Your task to perform on an android device: choose inbox layout in the gmail app Image 0: 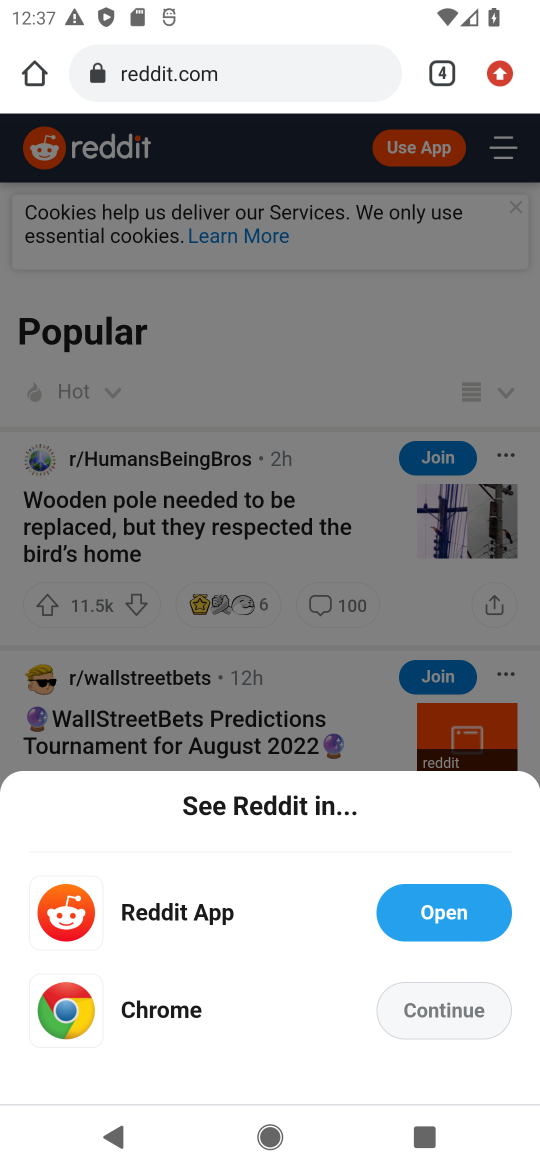
Step 0: press back button
Your task to perform on an android device: choose inbox layout in the gmail app Image 1: 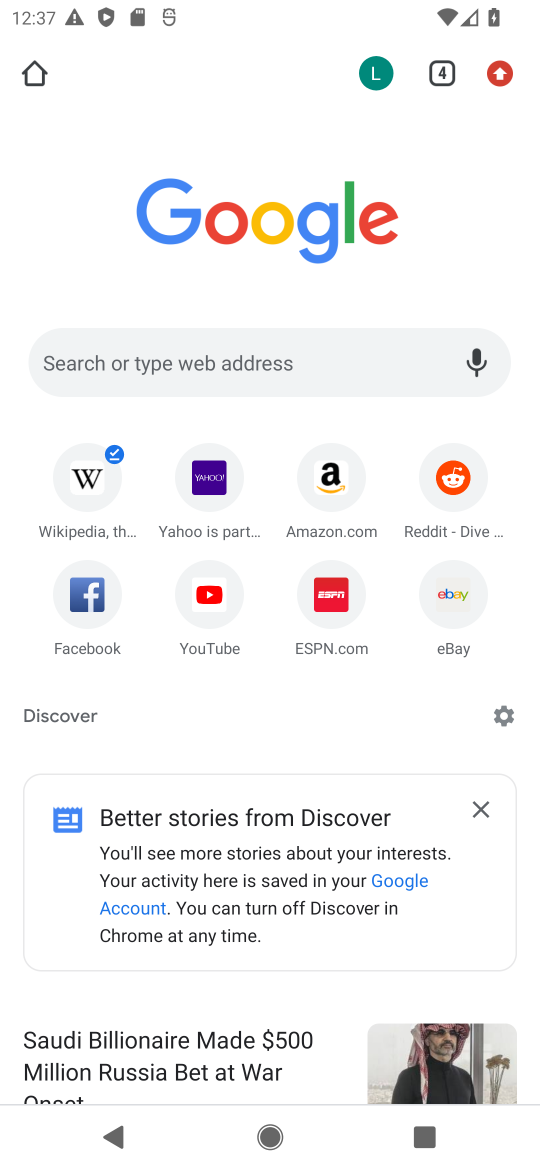
Step 1: press back button
Your task to perform on an android device: choose inbox layout in the gmail app Image 2: 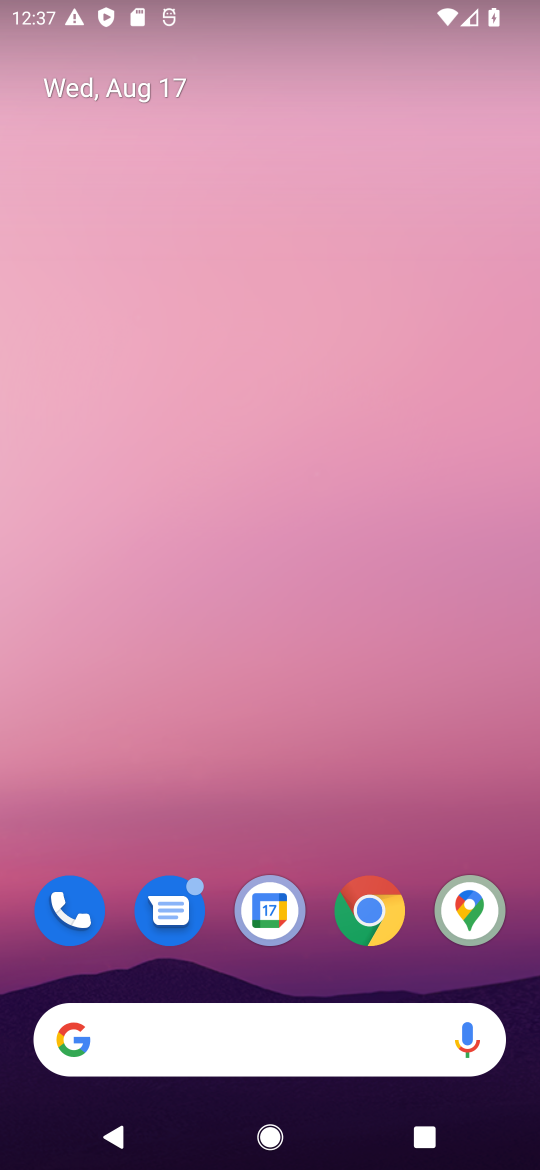
Step 2: drag from (288, 979) to (342, 129)
Your task to perform on an android device: choose inbox layout in the gmail app Image 3: 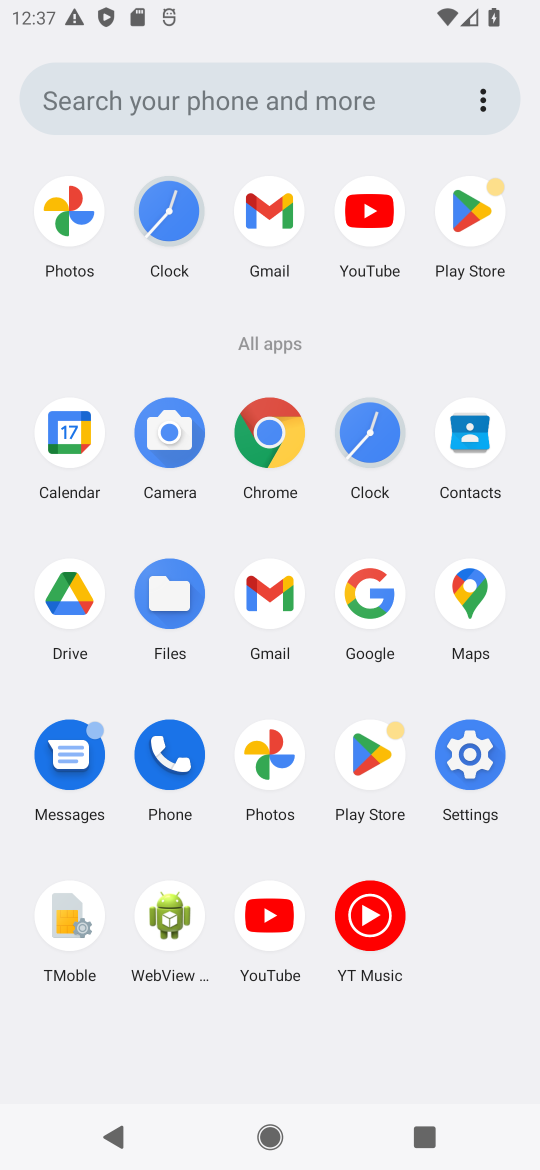
Step 3: click (274, 214)
Your task to perform on an android device: choose inbox layout in the gmail app Image 4: 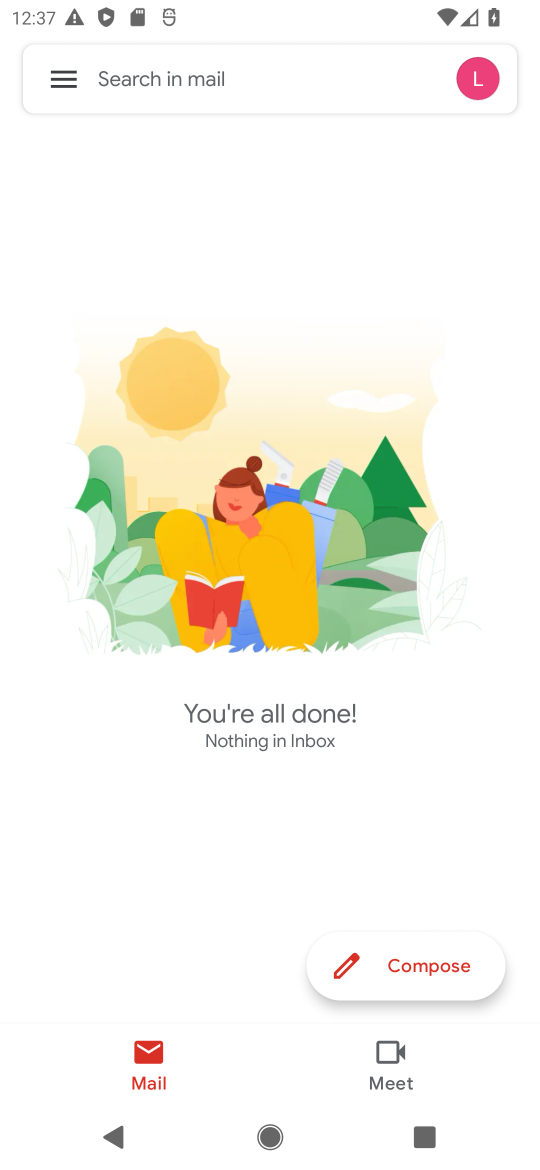
Step 4: click (61, 76)
Your task to perform on an android device: choose inbox layout in the gmail app Image 5: 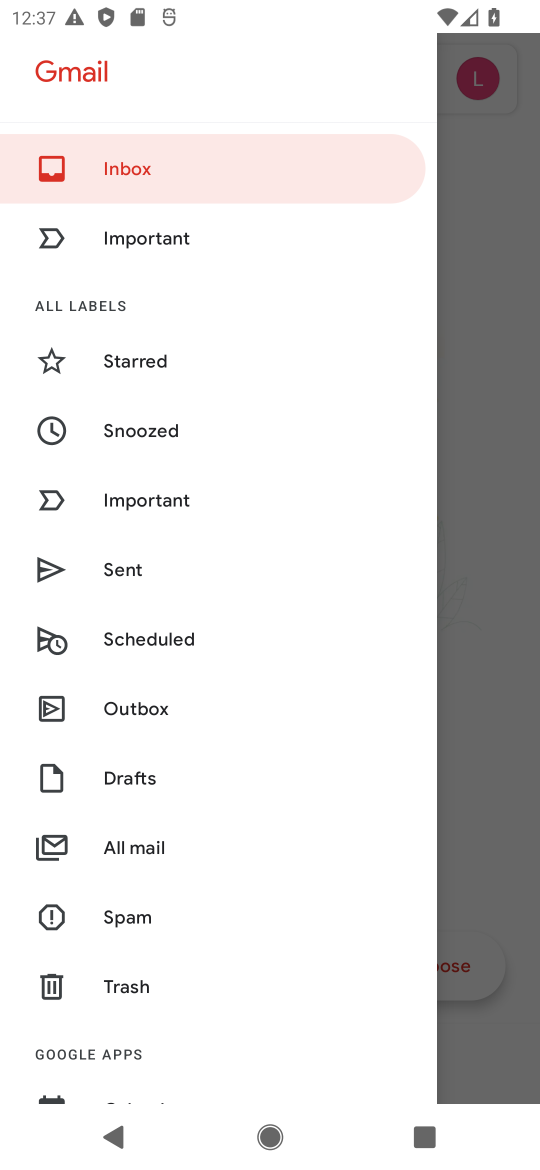
Step 5: drag from (240, 1023) to (310, 162)
Your task to perform on an android device: choose inbox layout in the gmail app Image 6: 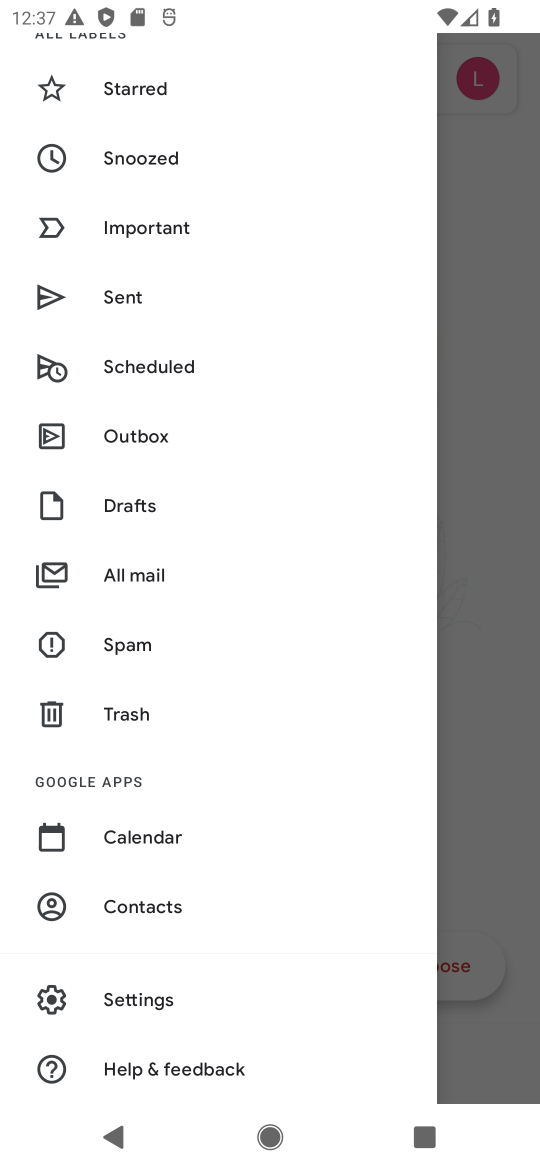
Step 6: click (171, 991)
Your task to perform on an android device: choose inbox layout in the gmail app Image 7: 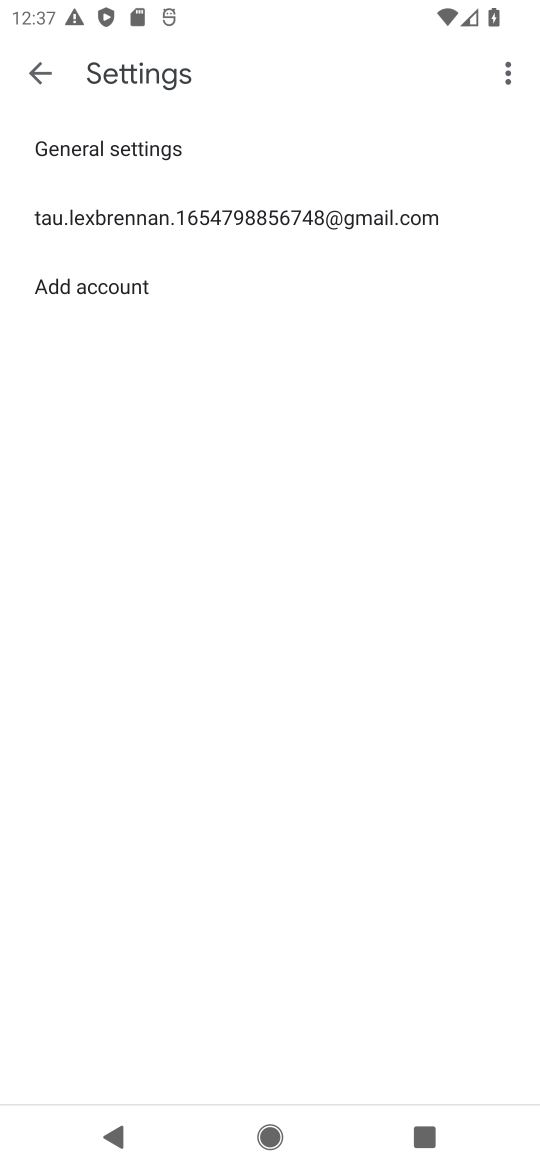
Step 7: click (205, 208)
Your task to perform on an android device: choose inbox layout in the gmail app Image 8: 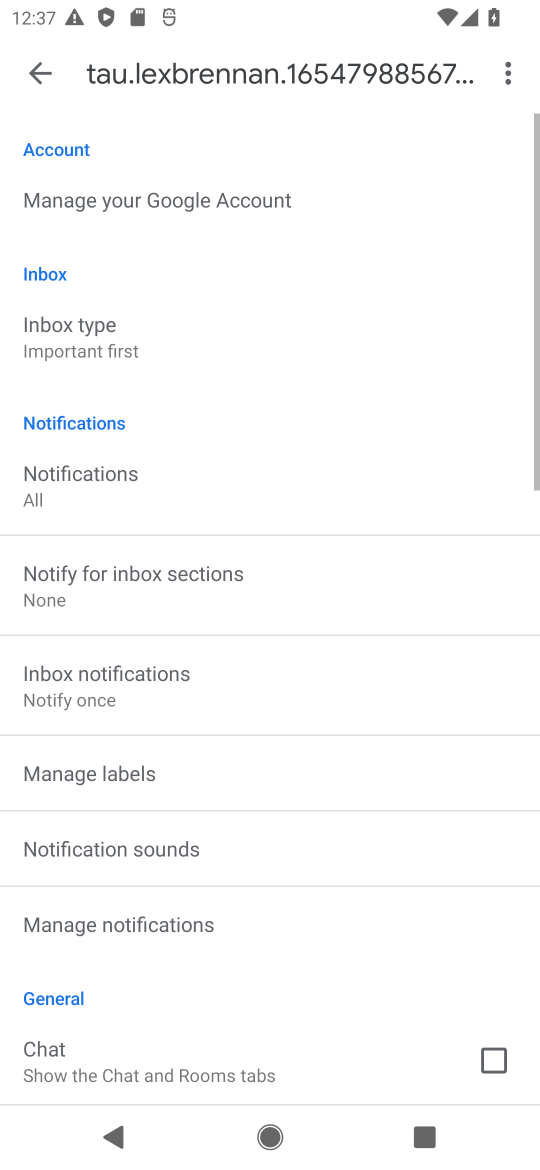
Step 8: click (107, 336)
Your task to perform on an android device: choose inbox layout in the gmail app Image 9: 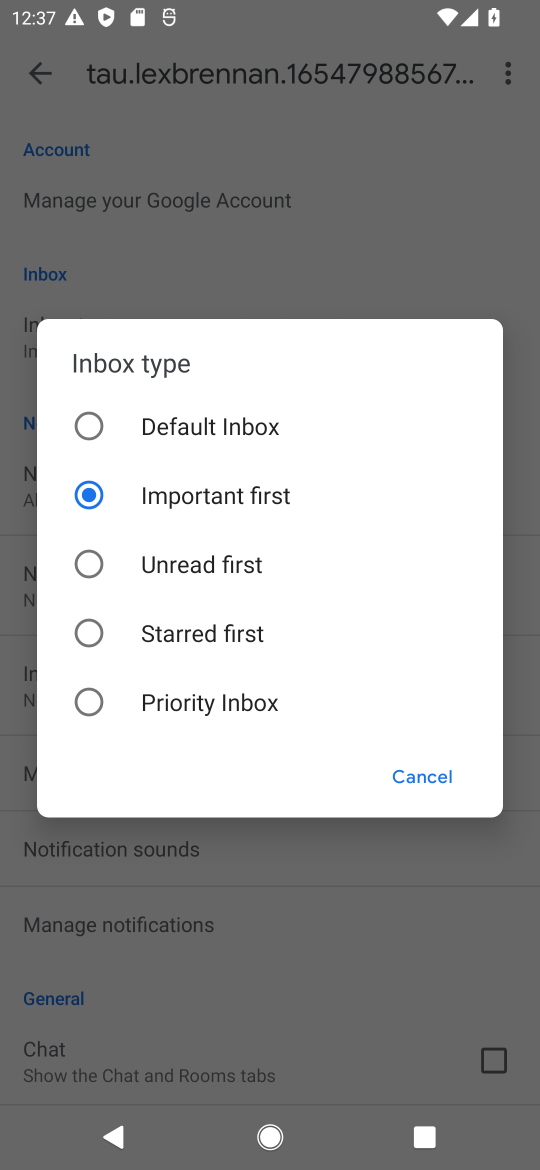
Step 9: click (84, 433)
Your task to perform on an android device: choose inbox layout in the gmail app Image 10: 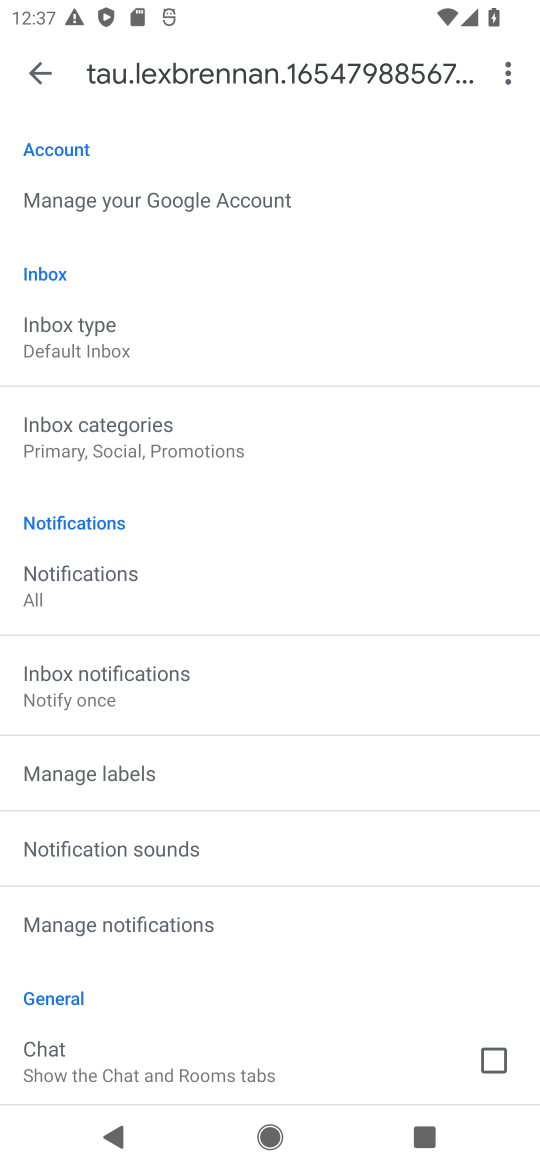
Step 10: task complete